Your task to perform on an android device: Search for flights from Tokyo to Seoul Image 0: 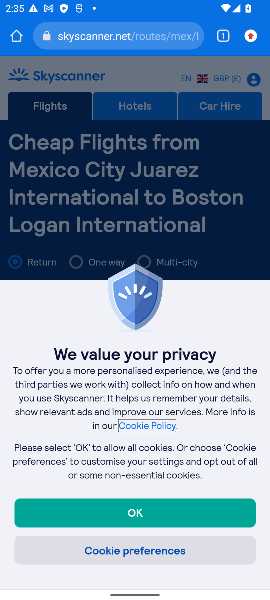
Step 0: press home button
Your task to perform on an android device: Search for flights from Tokyo to Seoul Image 1: 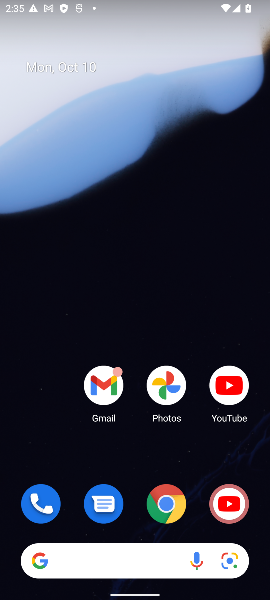
Step 1: drag from (171, 535) to (81, 175)
Your task to perform on an android device: Search for flights from Tokyo to Seoul Image 2: 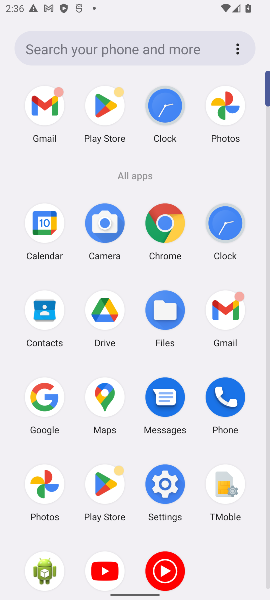
Step 2: click (168, 225)
Your task to perform on an android device: Search for flights from Tokyo to Seoul Image 3: 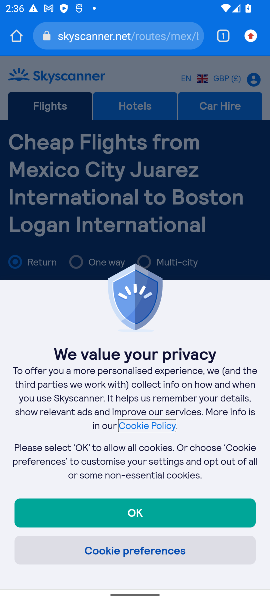
Step 3: click (142, 25)
Your task to perform on an android device: Search for flights from Tokyo to Seoul Image 4: 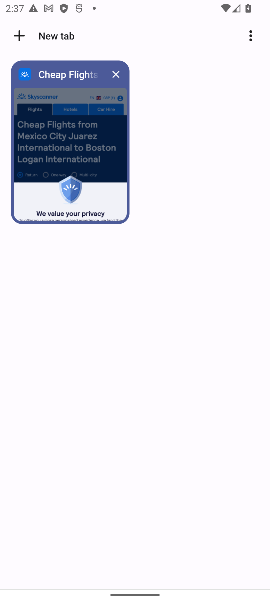
Step 4: press back button
Your task to perform on an android device: Search for flights from Tokyo to Seoul Image 5: 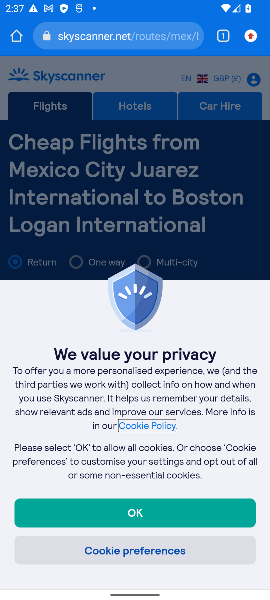
Step 5: click (81, 41)
Your task to perform on an android device: Search for flights from Tokyo to Seoul Image 6: 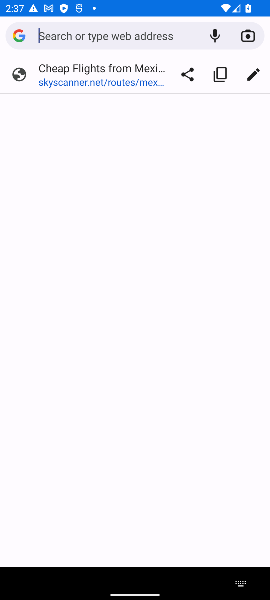
Step 6: type "flights from Tokyo to Seoul"
Your task to perform on an android device: Search for flights from Tokyo to Seoul Image 7: 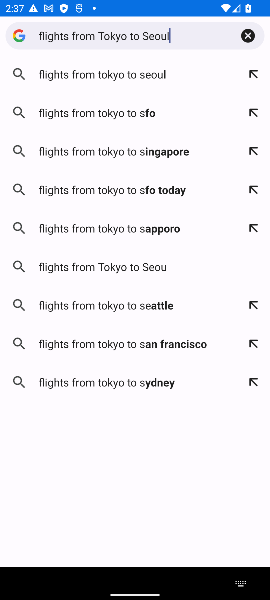
Step 7: press enter
Your task to perform on an android device: Search for flights from Tokyo to Seoul Image 8: 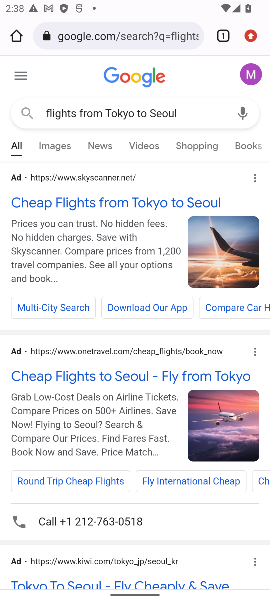
Step 8: click (84, 197)
Your task to perform on an android device: Search for flights from Tokyo to Seoul Image 9: 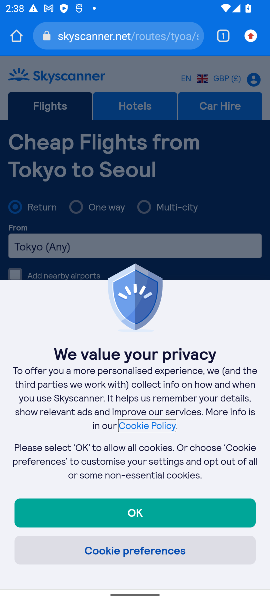
Step 9: task complete